Your task to perform on an android device: Search for seafood restaurants on Google Maps Image 0: 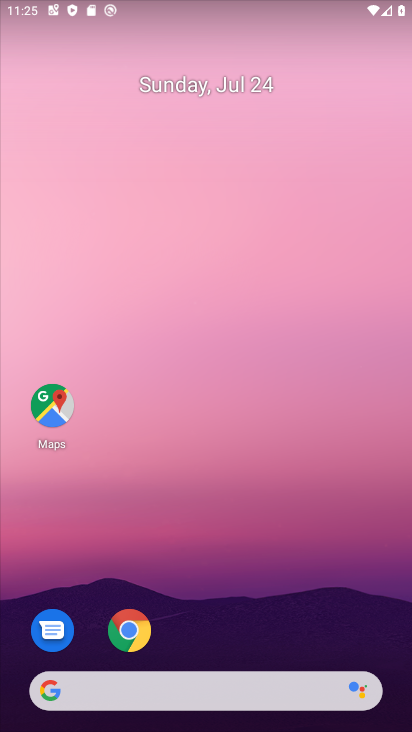
Step 0: click (46, 406)
Your task to perform on an android device: Search for seafood restaurants on Google Maps Image 1: 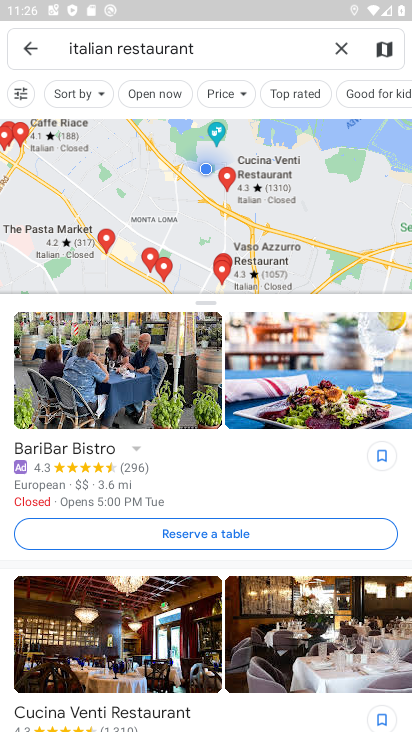
Step 1: click (26, 49)
Your task to perform on an android device: Search for seafood restaurants on Google Maps Image 2: 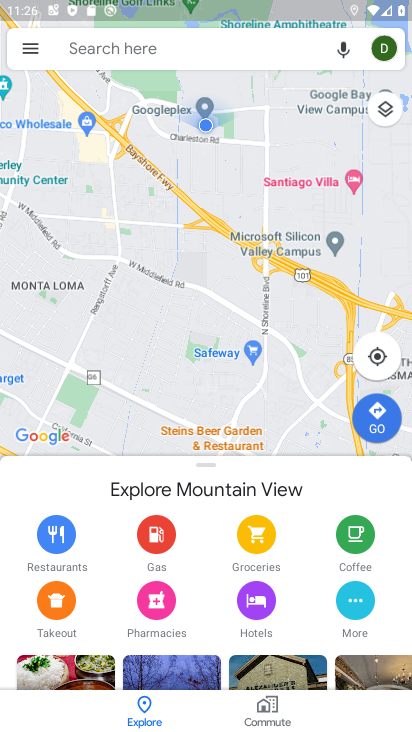
Step 2: click (134, 47)
Your task to perform on an android device: Search for seafood restaurants on Google Maps Image 3: 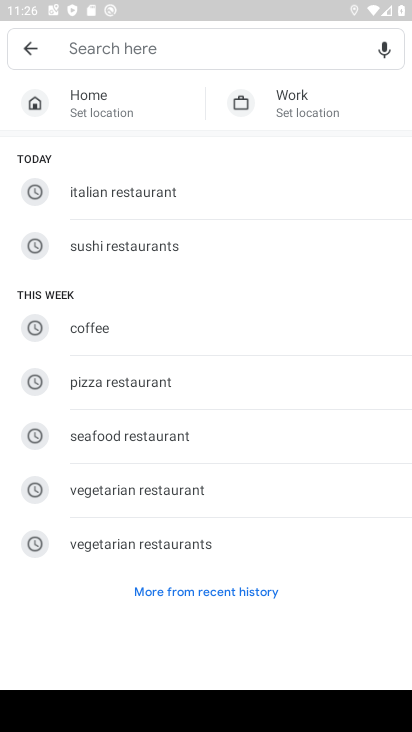
Step 3: click (104, 440)
Your task to perform on an android device: Search for seafood restaurants on Google Maps Image 4: 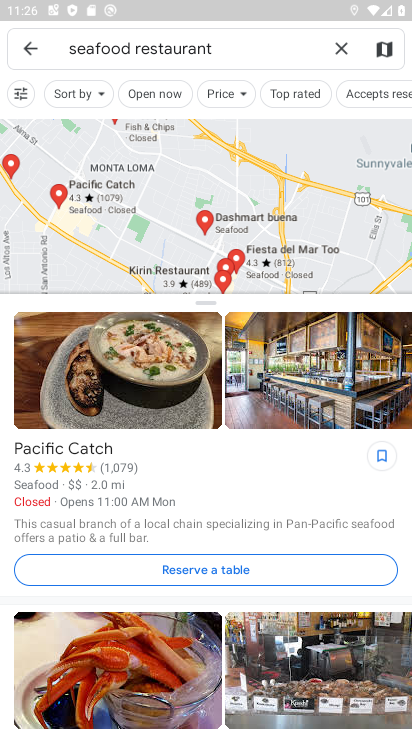
Step 4: task complete